Your task to perform on an android device: toggle notifications settings in the gmail app Image 0: 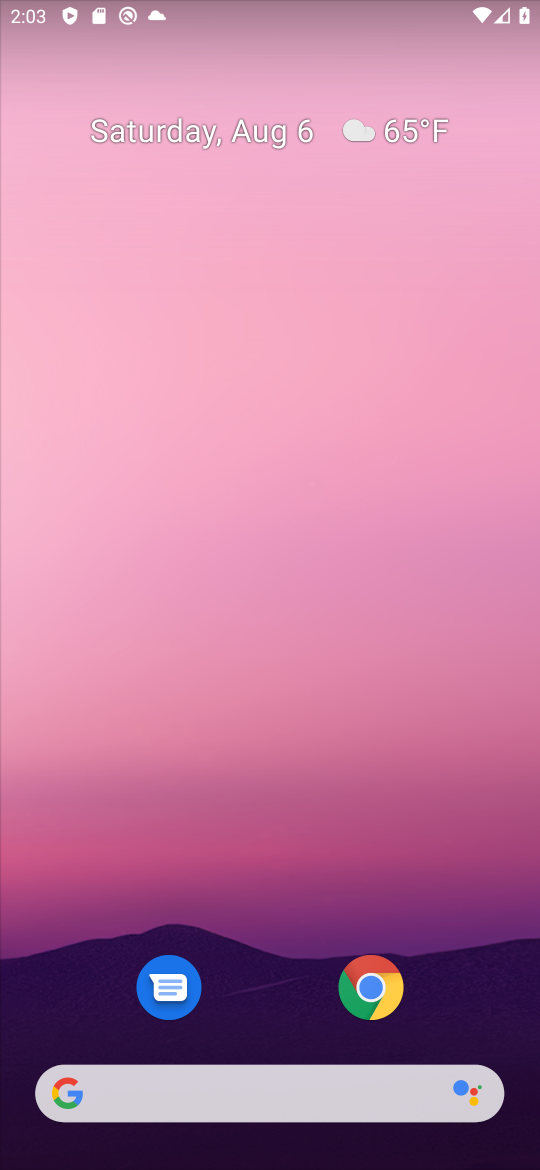
Step 0: drag from (249, 747) to (252, 250)
Your task to perform on an android device: toggle notifications settings in the gmail app Image 1: 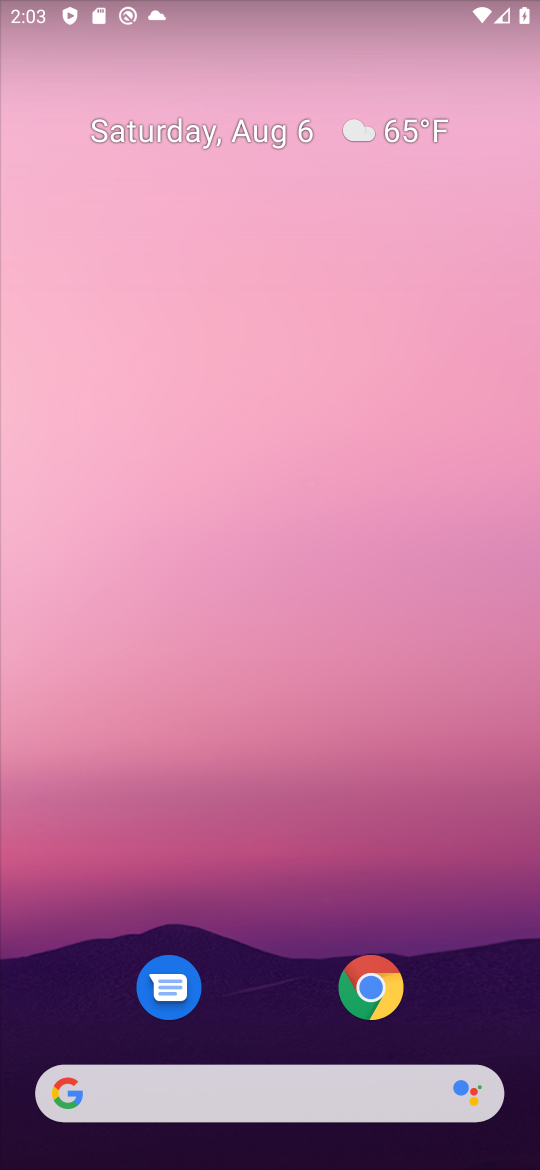
Step 1: drag from (237, 1159) to (331, 59)
Your task to perform on an android device: toggle notifications settings in the gmail app Image 2: 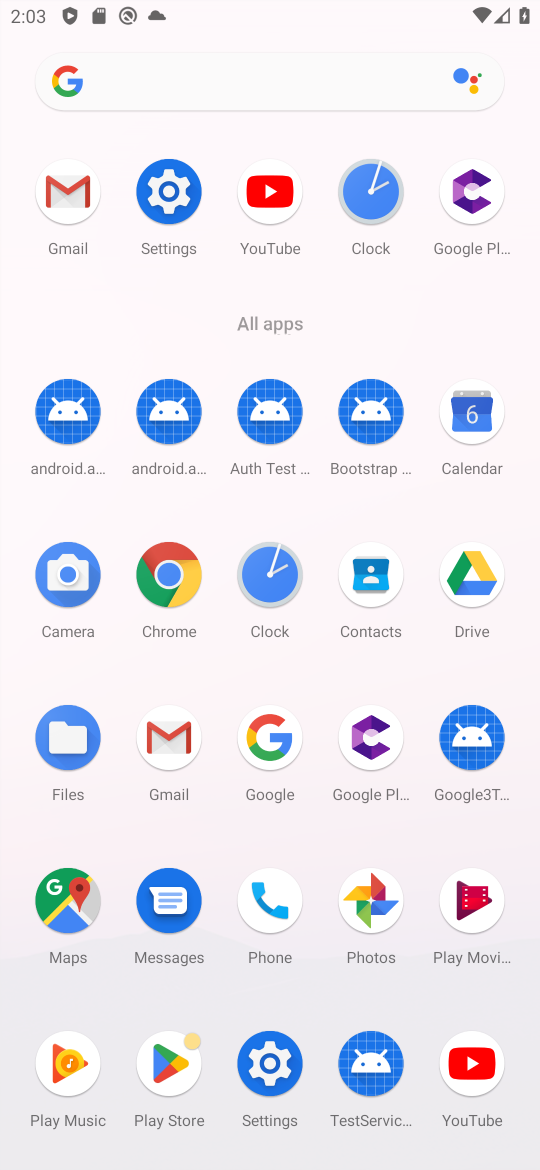
Step 2: click (85, 193)
Your task to perform on an android device: toggle notifications settings in the gmail app Image 3: 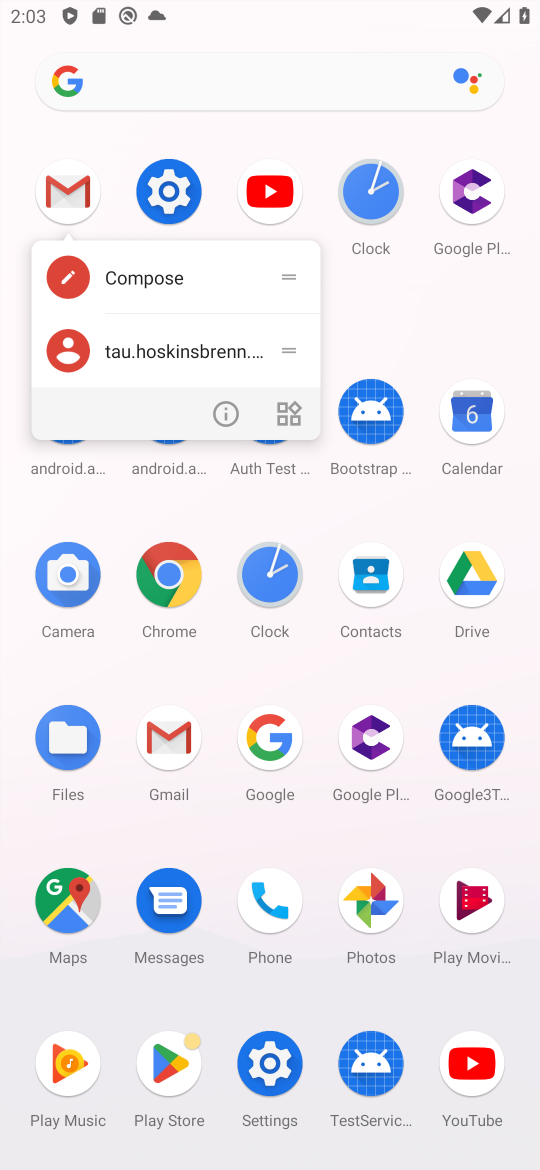
Step 3: click (224, 405)
Your task to perform on an android device: toggle notifications settings in the gmail app Image 4: 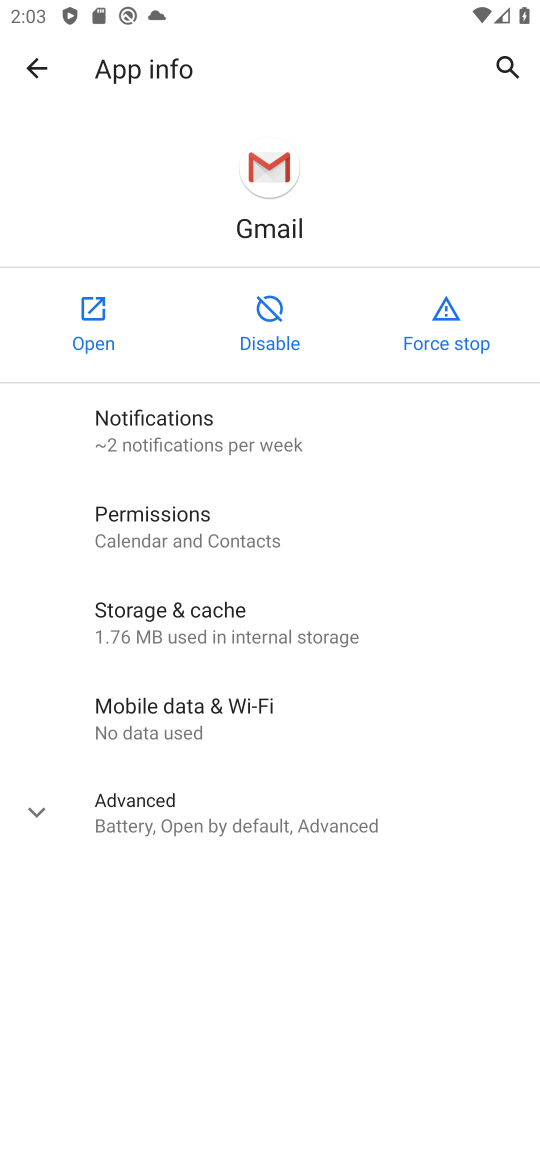
Step 4: click (263, 426)
Your task to perform on an android device: toggle notifications settings in the gmail app Image 5: 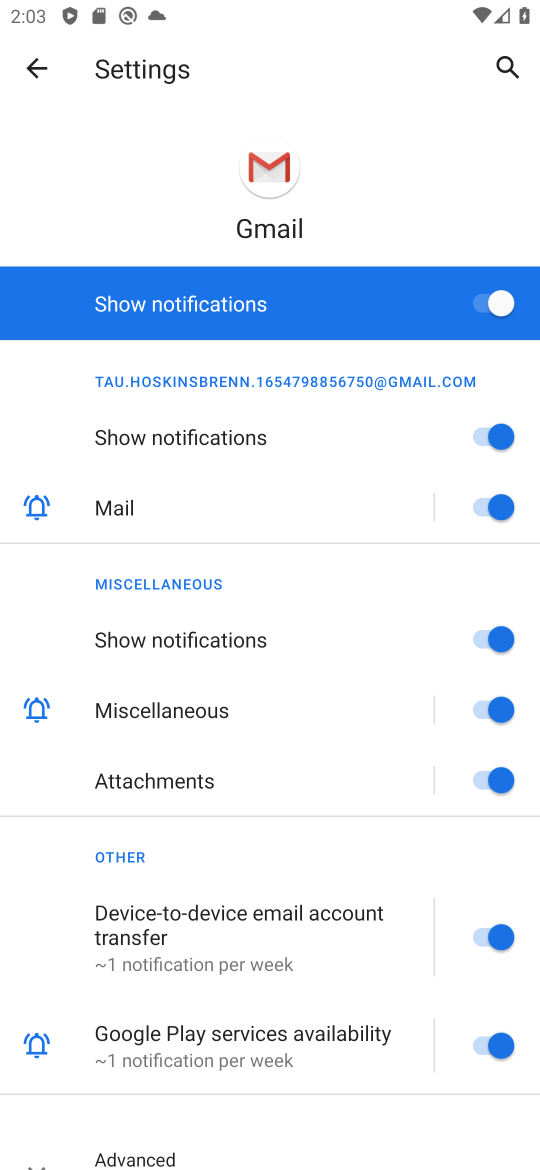
Step 5: click (500, 309)
Your task to perform on an android device: toggle notifications settings in the gmail app Image 6: 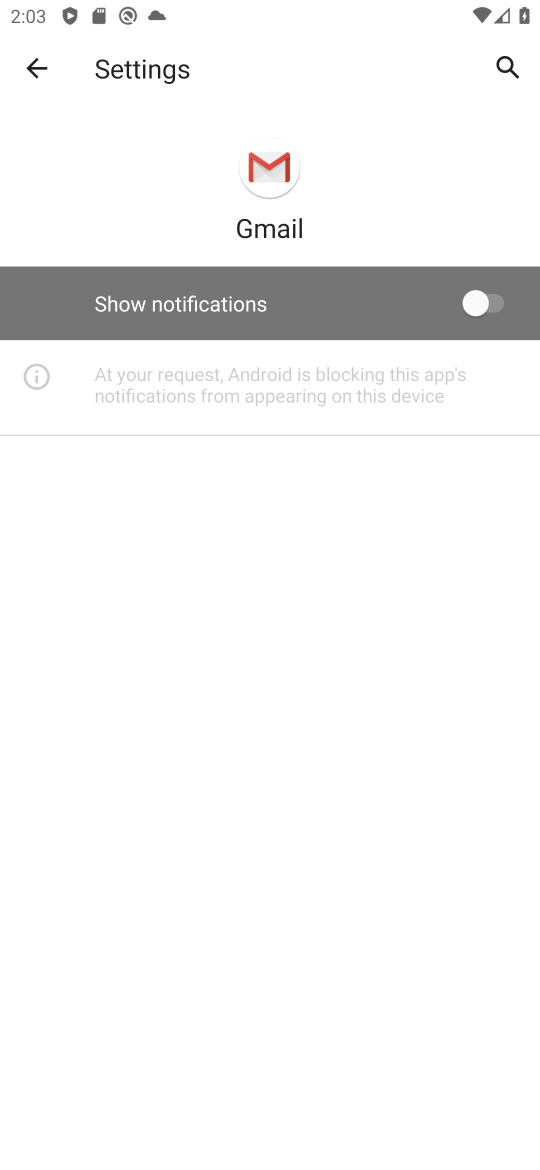
Step 6: task complete